Your task to perform on an android device: toggle translation in the chrome app Image 0: 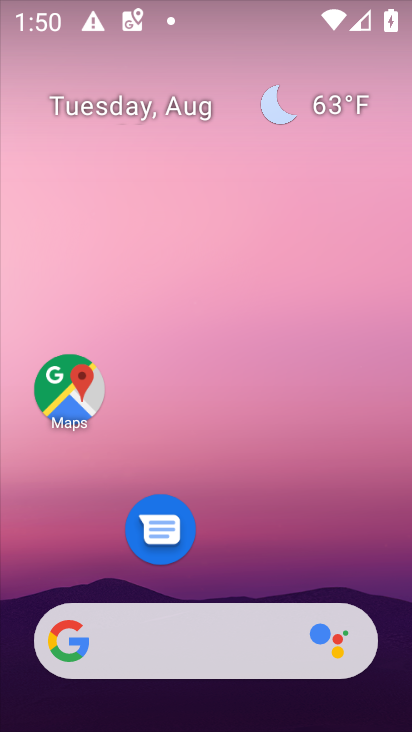
Step 0: drag from (302, 566) to (291, 107)
Your task to perform on an android device: toggle translation in the chrome app Image 1: 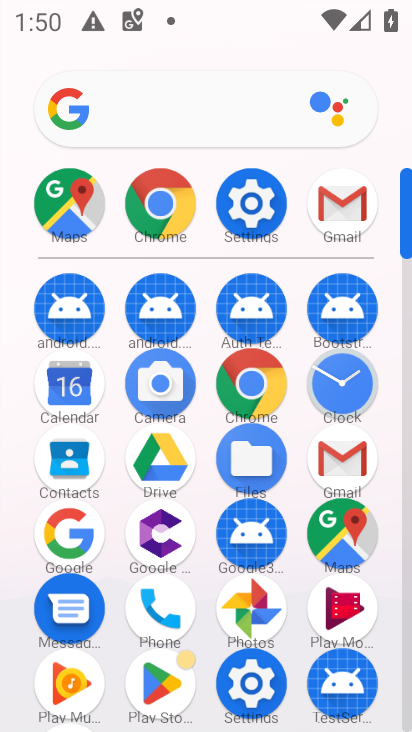
Step 1: click (156, 215)
Your task to perform on an android device: toggle translation in the chrome app Image 2: 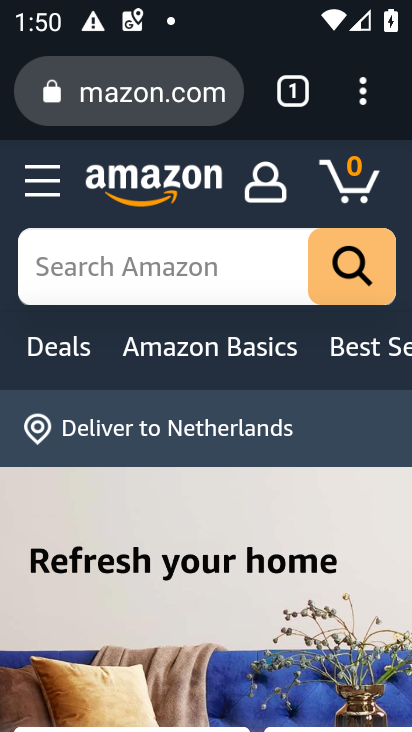
Step 2: click (348, 106)
Your task to perform on an android device: toggle translation in the chrome app Image 3: 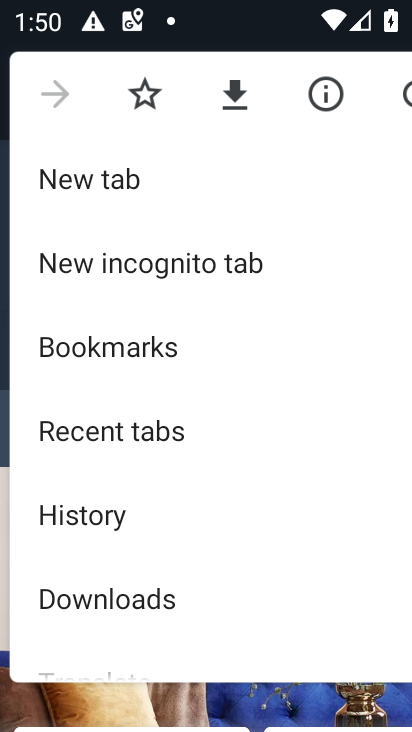
Step 3: drag from (190, 627) to (208, 371)
Your task to perform on an android device: toggle translation in the chrome app Image 4: 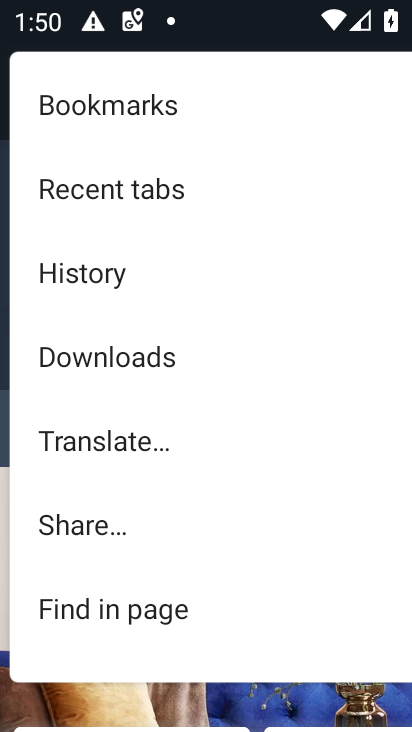
Step 4: click (128, 308)
Your task to perform on an android device: toggle translation in the chrome app Image 5: 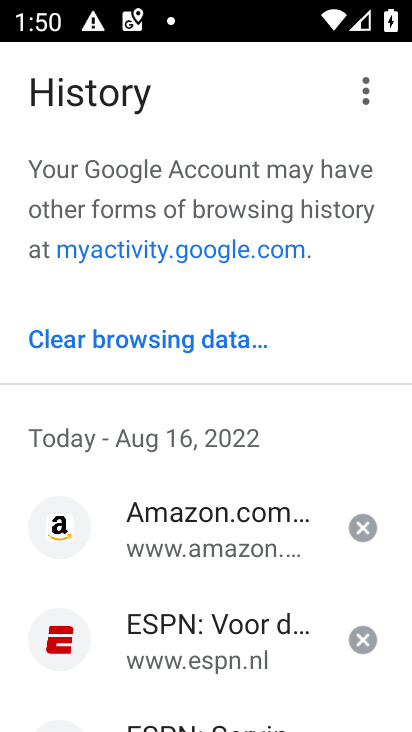
Step 5: press back button
Your task to perform on an android device: toggle translation in the chrome app Image 6: 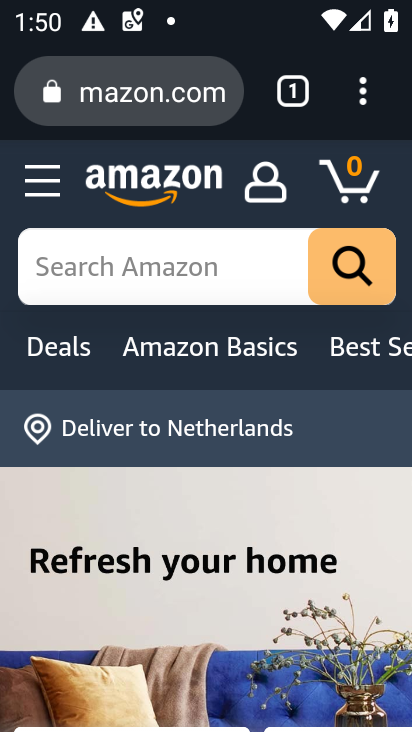
Step 6: press back button
Your task to perform on an android device: toggle translation in the chrome app Image 7: 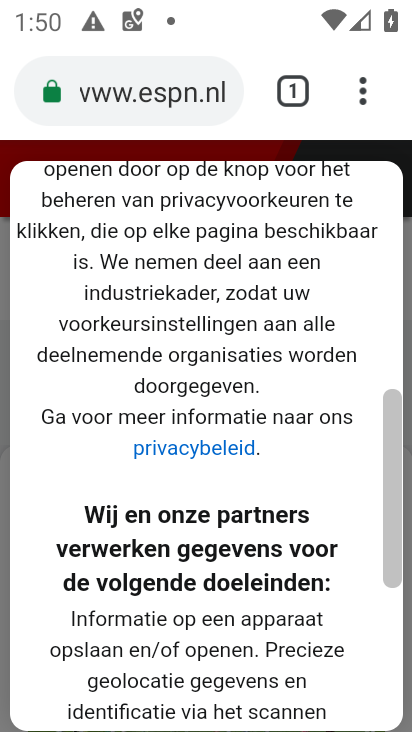
Step 7: click (357, 95)
Your task to perform on an android device: toggle translation in the chrome app Image 8: 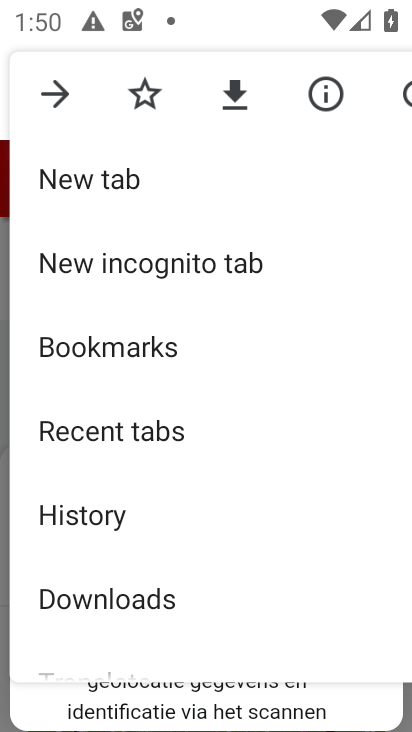
Step 8: drag from (220, 595) to (201, 347)
Your task to perform on an android device: toggle translation in the chrome app Image 9: 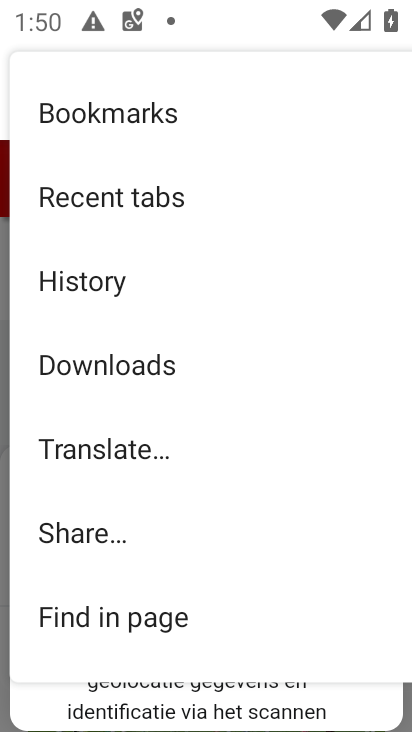
Step 9: drag from (171, 548) to (181, 322)
Your task to perform on an android device: toggle translation in the chrome app Image 10: 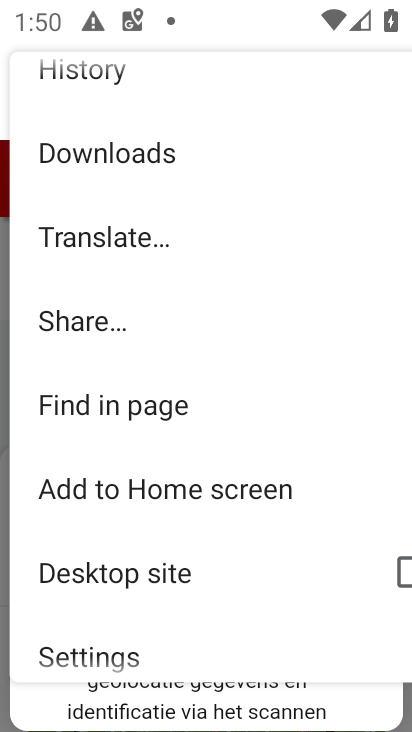
Step 10: click (161, 653)
Your task to perform on an android device: toggle translation in the chrome app Image 11: 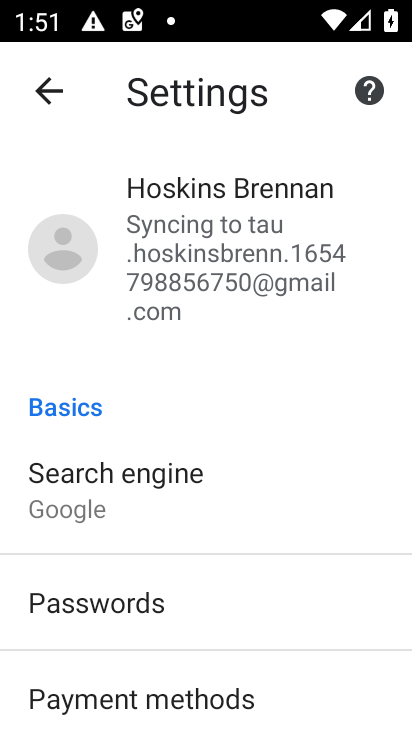
Step 11: drag from (152, 643) to (111, 403)
Your task to perform on an android device: toggle translation in the chrome app Image 12: 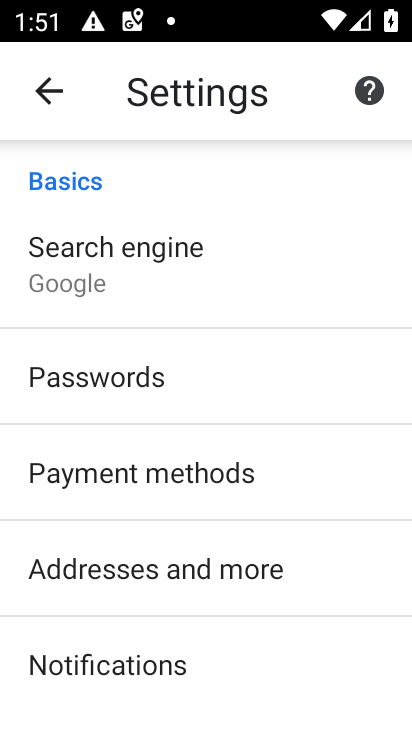
Step 12: drag from (171, 662) to (127, 370)
Your task to perform on an android device: toggle translation in the chrome app Image 13: 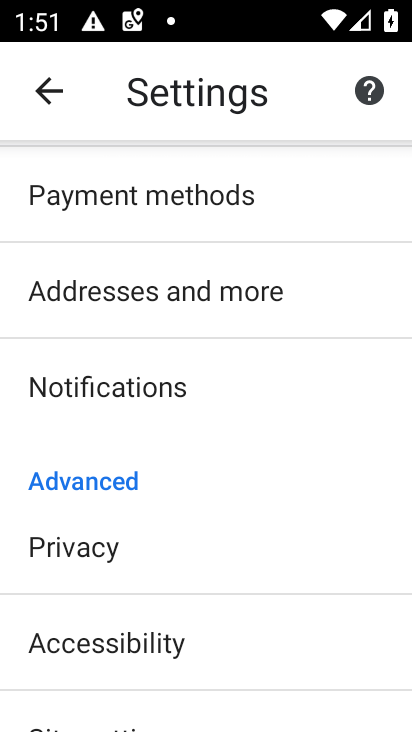
Step 13: drag from (182, 587) to (125, 303)
Your task to perform on an android device: toggle translation in the chrome app Image 14: 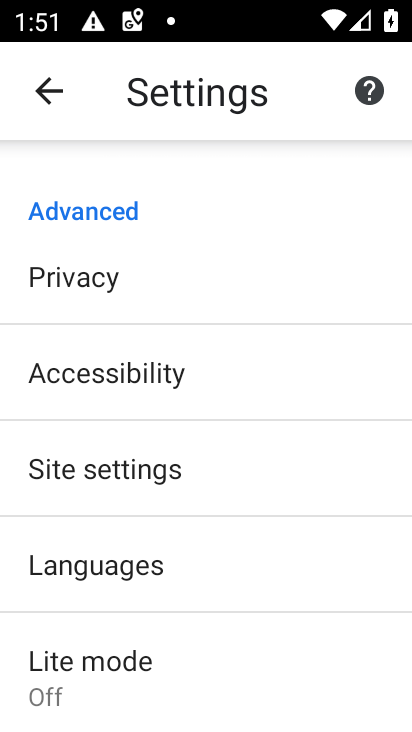
Step 14: click (112, 550)
Your task to perform on an android device: toggle translation in the chrome app Image 15: 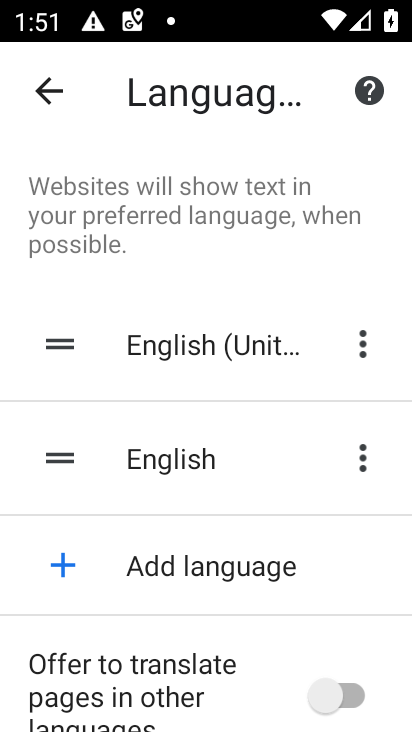
Step 15: click (359, 684)
Your task to perform on an android device: toggle translation in the chrome app Image 16: 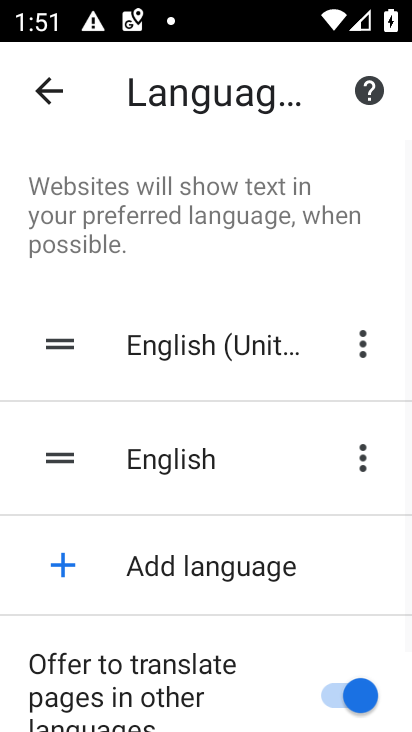
Step 16: task complete